Your task to perform on an android device: Search for pizza restaurants on Maps Image 0: 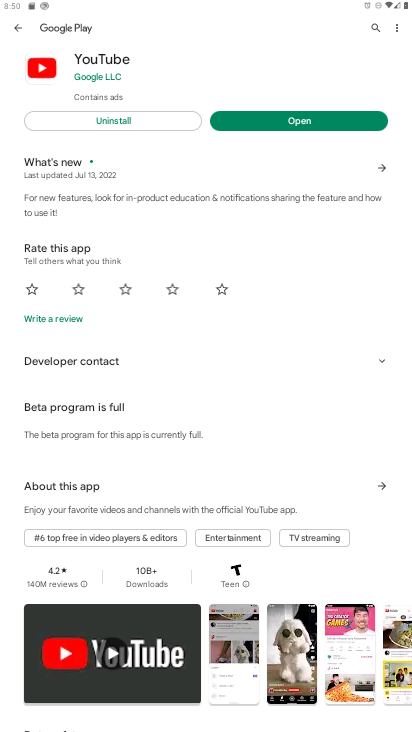
Step 0: press home button
Your task to perform on an android device: Search for pizza restaurants on Maps Image 1: 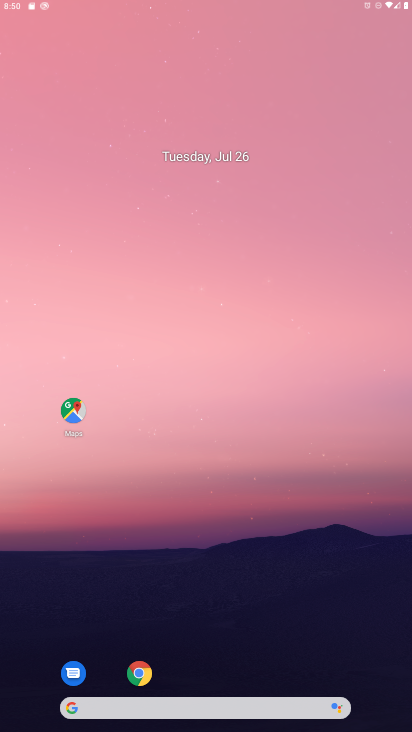
Step 1: drag from (371, 658) to (115, 36)
Your task to perform on an android device: Search for pizza restaurants on Maps Image 2: 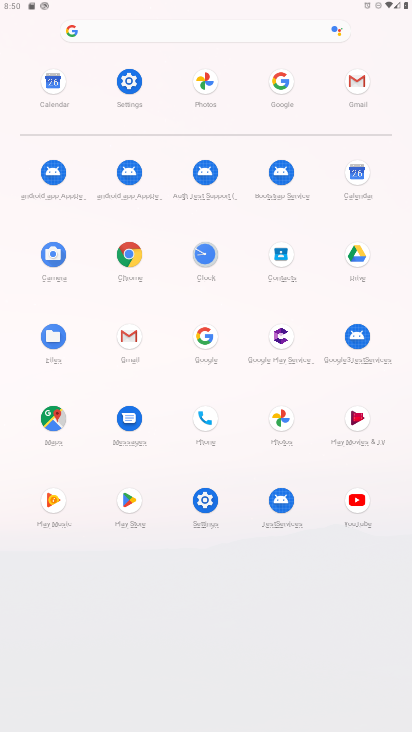
Step 2: click (62, 433)
Your task to perform on an android device: Search for pizza restaurants on Maps Image 3: 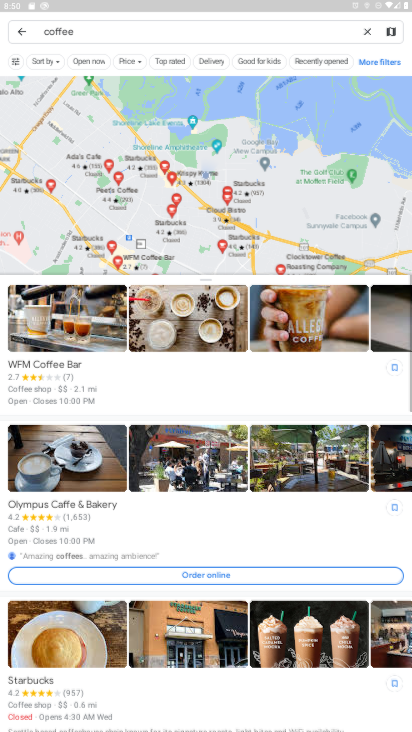
Step 3: click (365, 28)
Your task to perform on an android device: Search for pizza restaurants on Maps Image 4: 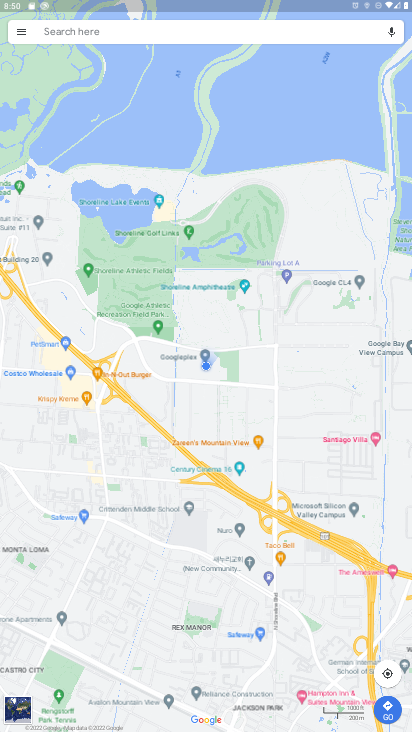
Step 4: click (73, 30)
Your task to perform on an android device: Search for pizza restaurants on Maps Image 5: 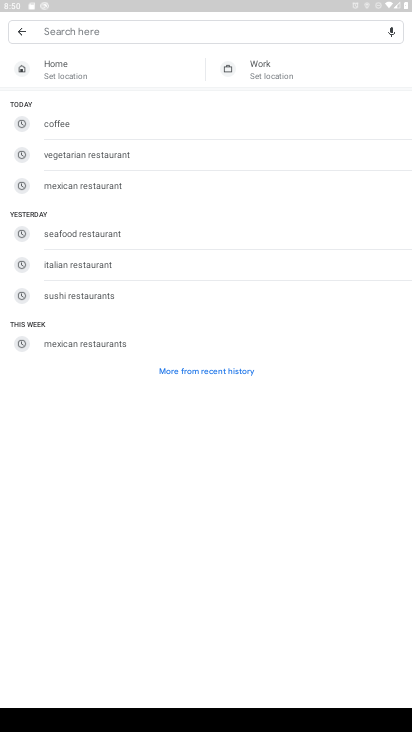
Step 5: type " pizza restaurants"
Your task to perform on an android device: Search for pizza restaurants on Maps Image 6: 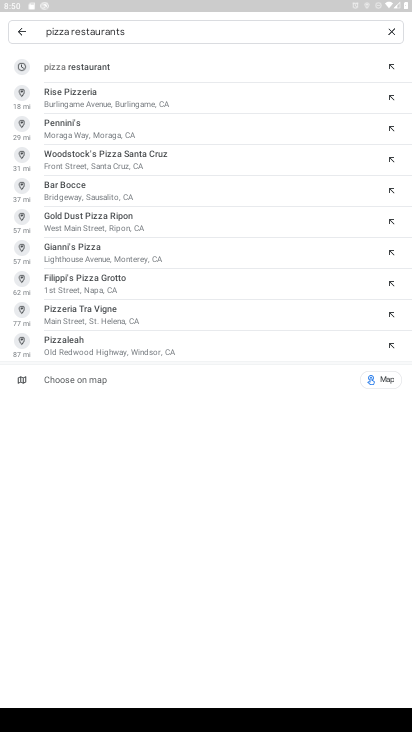
Step 6: click (96, 75)
Your task to perform on an android device: Search for pizza restaurants on Maps Image 7: 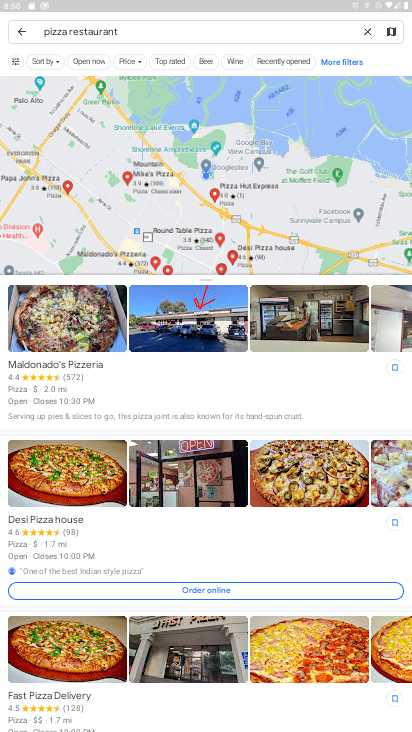
Step 7: task complete